Your task to perform on an android device: set an alarm Image 0: 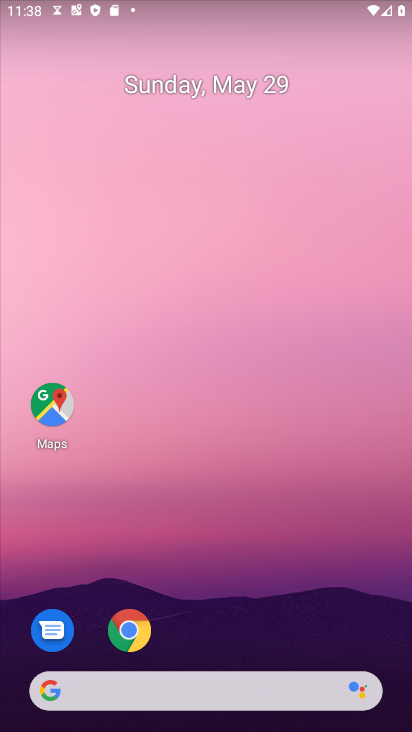
Step 0: drag from (216, 547) to (238, 27)
Your task to perform on an android device: set an alarm Image 1: 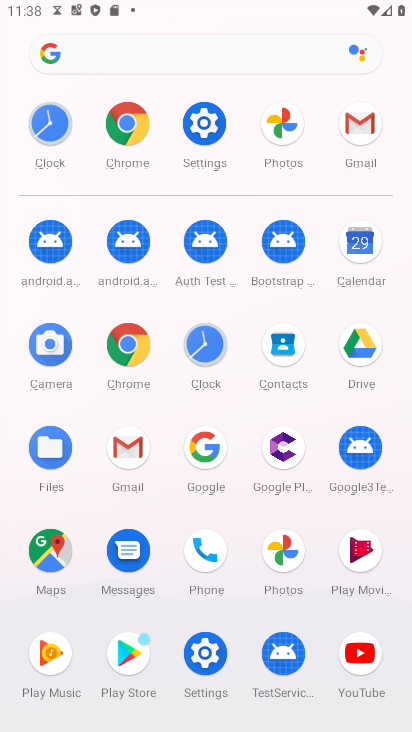
Step 1: click (56, 124)
Your task to perform on an android device: set an alarm Image 2: 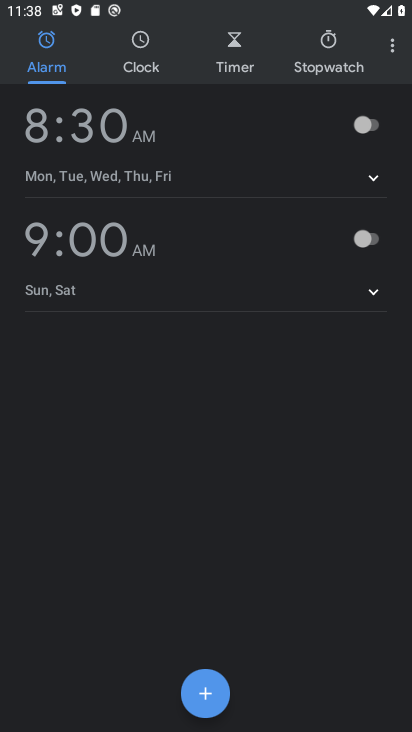
Step 2: click (350, 114)
Your task to perform on an android device: set an alarm Image 3: 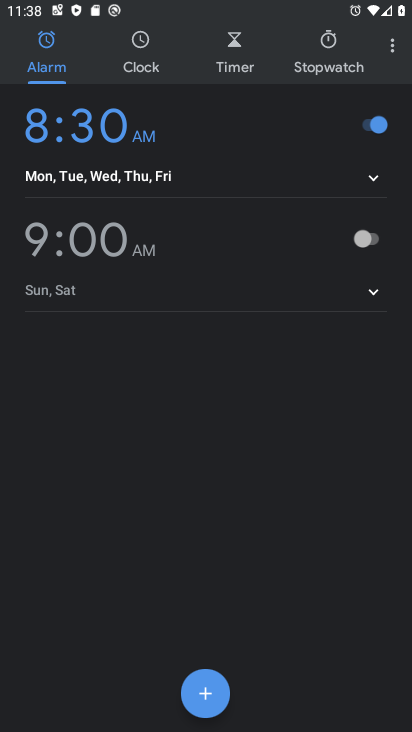
Step 3: task complete